Your task to perform on an android device: toggle translation in the chrome app Image 0: 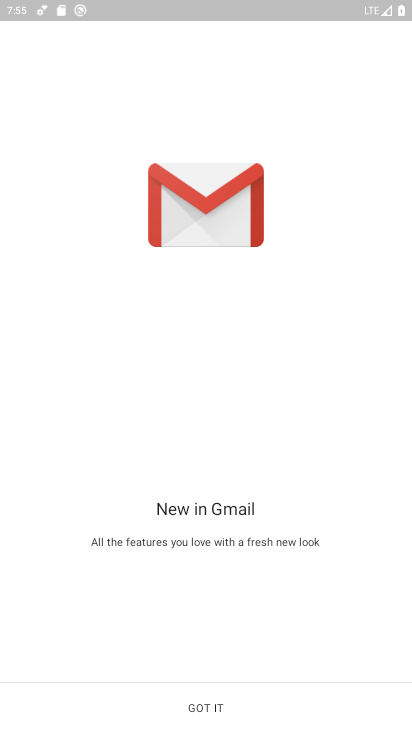
Step 0: press home button
Your task to perform on an android device: toggle translation in the chrome app Image 1: 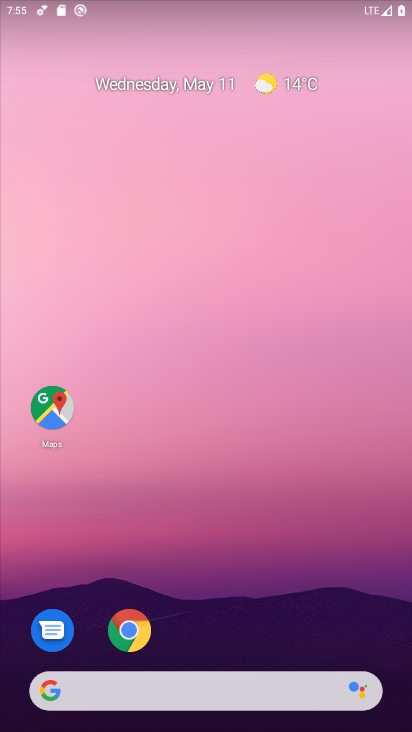
Step 1: click (126, 633)
Your task to perform on an android device: toggle translation in the chrome app Image 2: 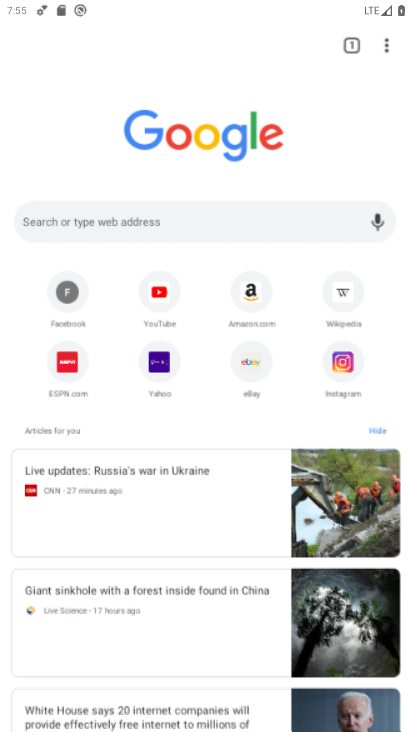
Step 2: click (384, 41)
Your task to perform on an android device: toggle translation in the chrome app Image 3: 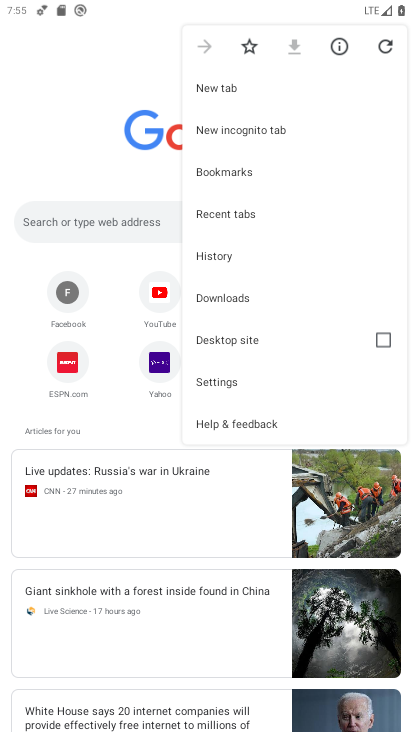
Step 3: click (203, 385)
Your task to perform on an android device: toggle translation in the chrome app Image 4: 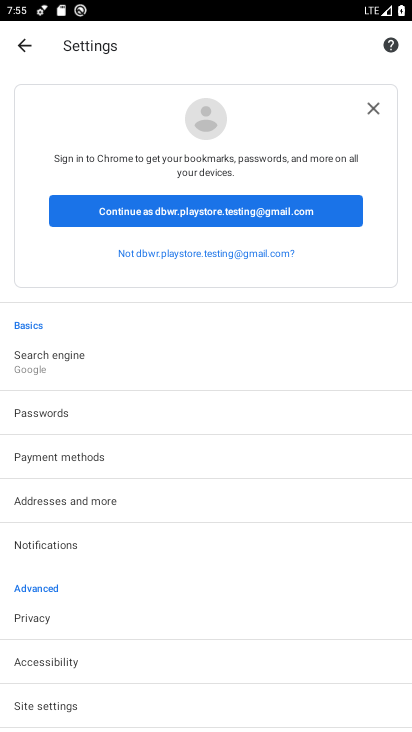
Step 4: drag from (93, 707) to (217, 280)
Your task to perform on an android device: toggle translation in the chrome app Image 5: 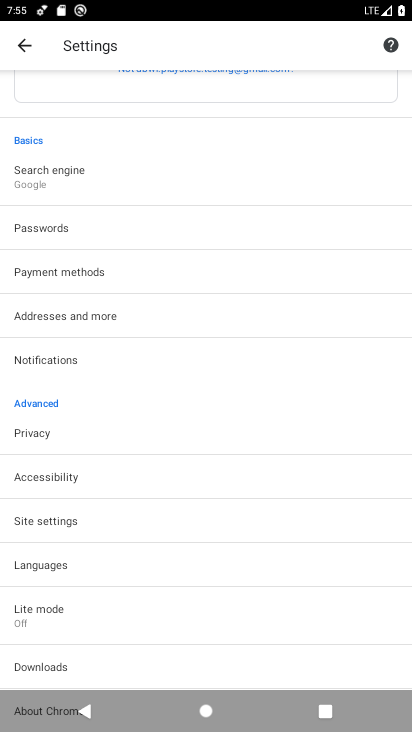
Step 5: click (102, 565)
Your task to perform on an android device: toggle translation in the chrome app Image 6: 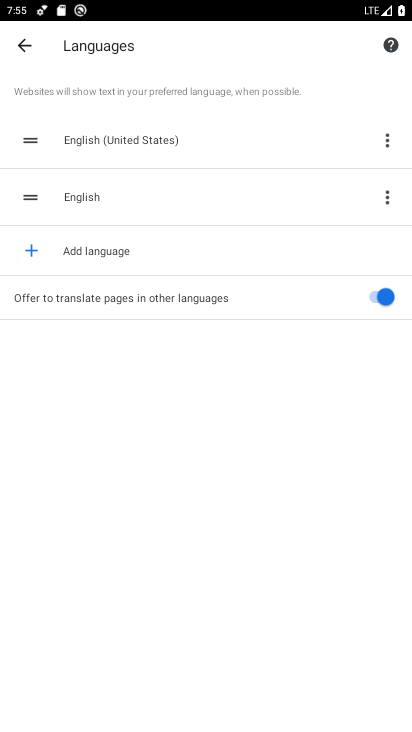
Step 6: click (375, 305)
Your task to perform on an android device: toggle translation in the chrome app Image 7: 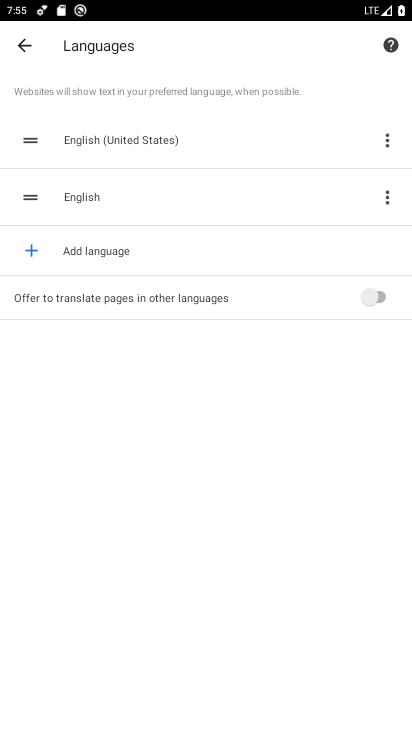
Step 7: task complete